Your task to perform on an android device: Open Youtube and go to the subscriptions tab Image 0: 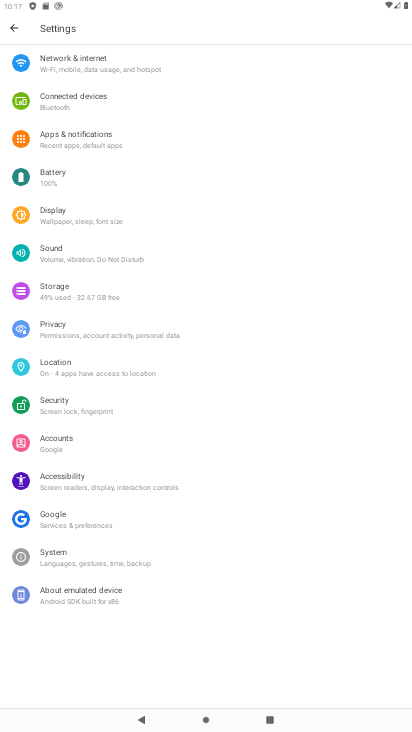
Step 0: press home button
Your task to perform on an android device: Open Youtube and go to the subscriptions tab Image 1: 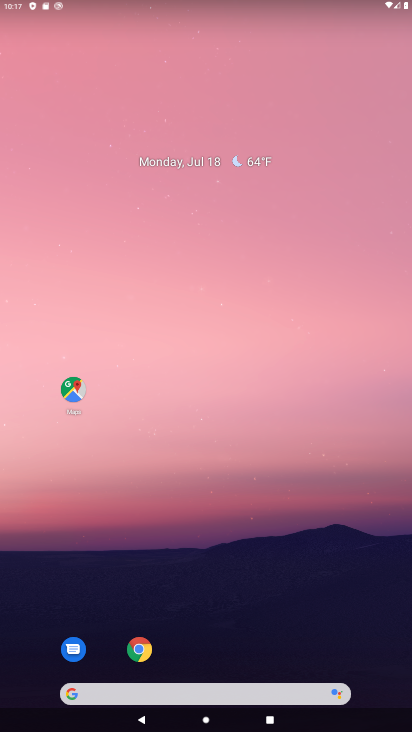
Step 1: click (260, 62)
Your task to perform on an android device: Open Youtube and go to the subscriptions tab Image 2: 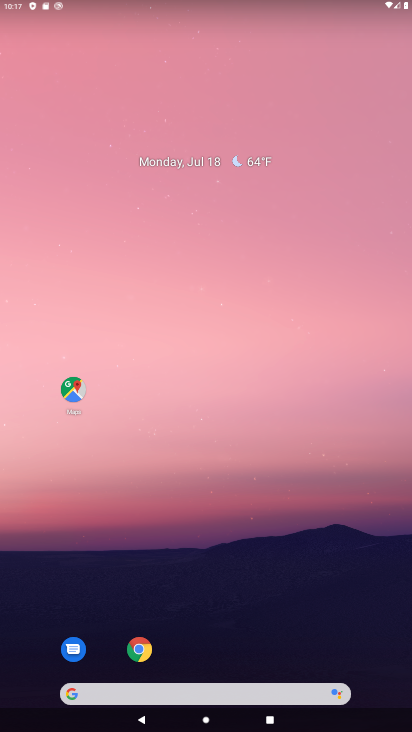
Step 2: drag from (267, 675) to (372, 98)
Your task to perform on an android device: Open Youtube and go to the subscriptions tab Image 3: 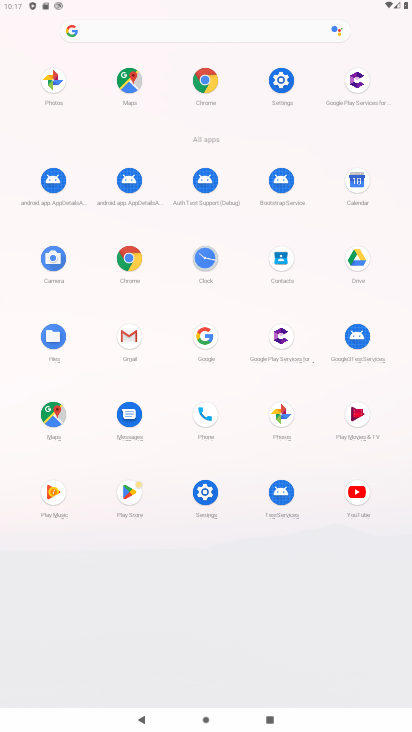
Step 3: click (358, 500)
Your task to perform on an android device: Open Youtube and go to the subscriptions tab Image 4: 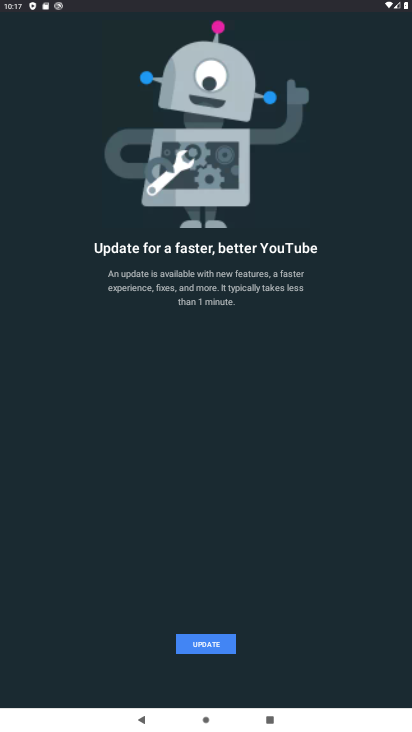
Step 4: click (219, 650)
Your task to perform on an android device: Open Youtube and go to the subscriptions tab Image 5: 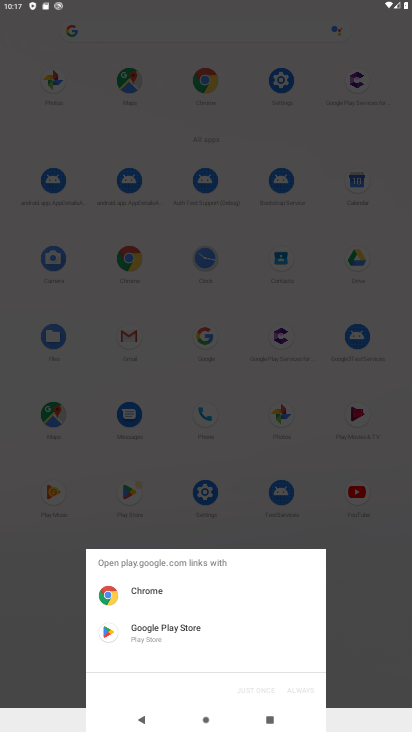
Step 5: drag from (219, 636) to (254, 616)
Your task to perform on an android device: Open Youtube and go to the subscriptions tab Image 6: 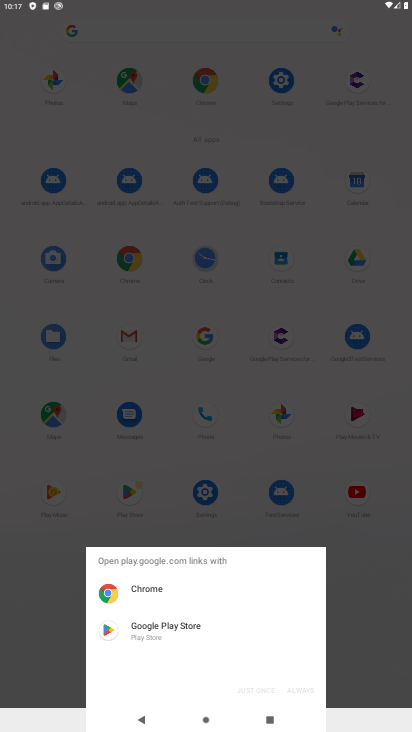
Step 6: click (238, 635)
Your task to perform on an android device: Open Youtube and go to the subscriptions tab Image 7: 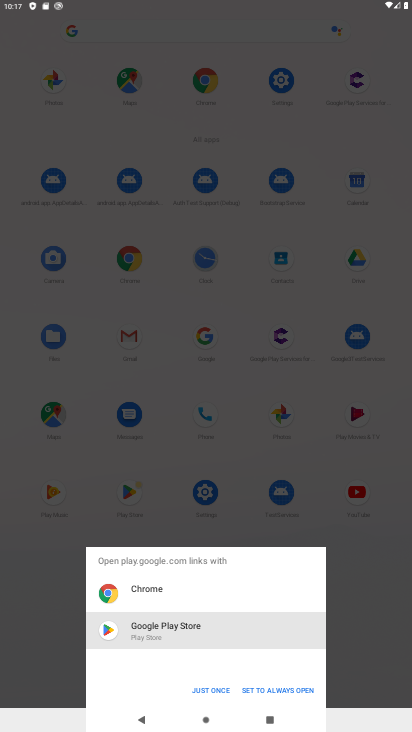
Step 7: click (227, 692)
Your task to perform on an android device: Open Youtube and go to the subscriptions tab Image 8: 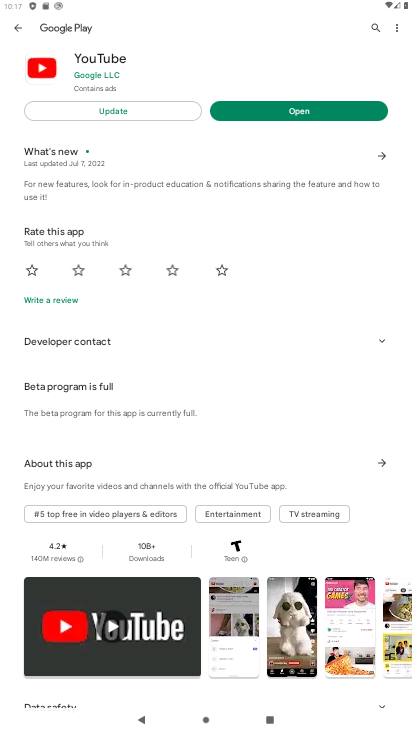
Step 8: click (162, 111)
Your task to perform on an android device: Open Youtube and go to the subscriptions tab Image 9: 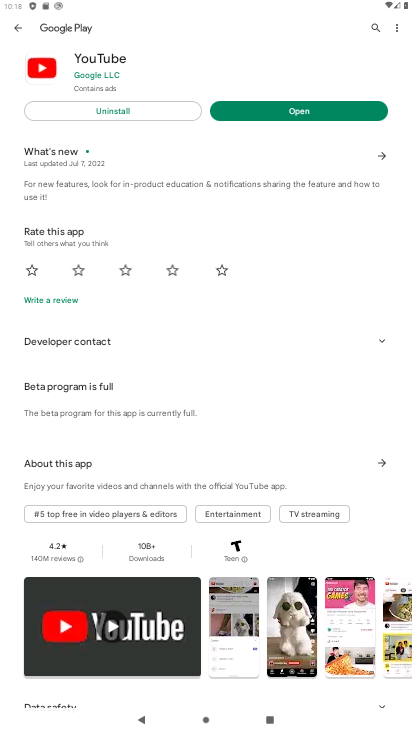
Step 9: click (316, 109)
Your task to perform on an android device: Open Youtube and go to the subscriptions tab Image 10: 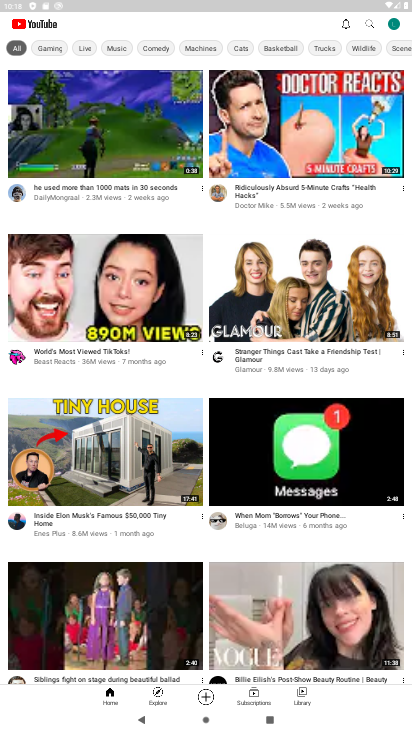
Step 10: click (254, 694)
Your task to perform on an android device: Open Youtube and go to the subscriptions tab Image 11: 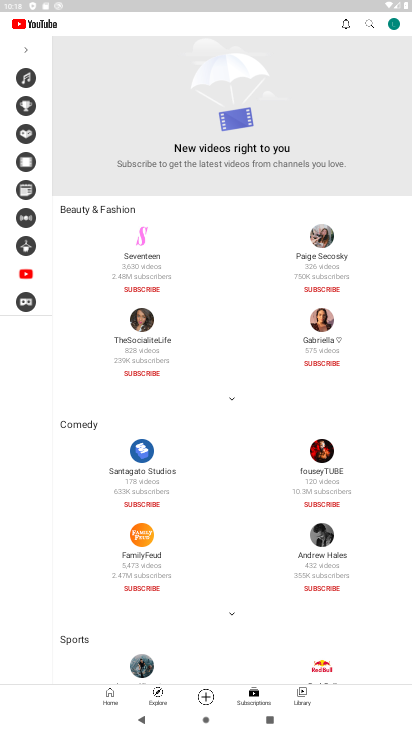
Step 11: task complete